Your task to perform on an android device: turn on javascript in the chrome app Image 0: 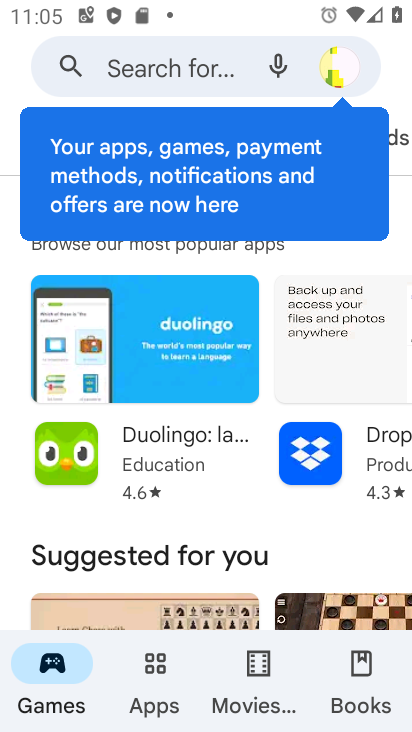
Step 0: press home button
Your task to perform on an android device: turn on javascript in the chrome app Image 1: 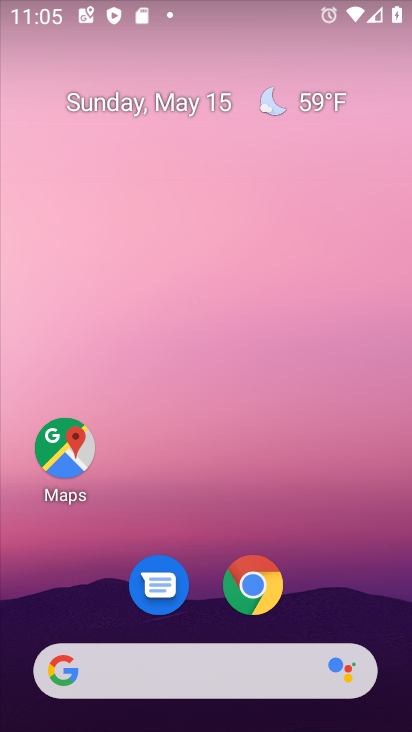
Step 1: click (261, 577)
Your task to perform on an android device: turn on javascript in the chrome app Image 2: 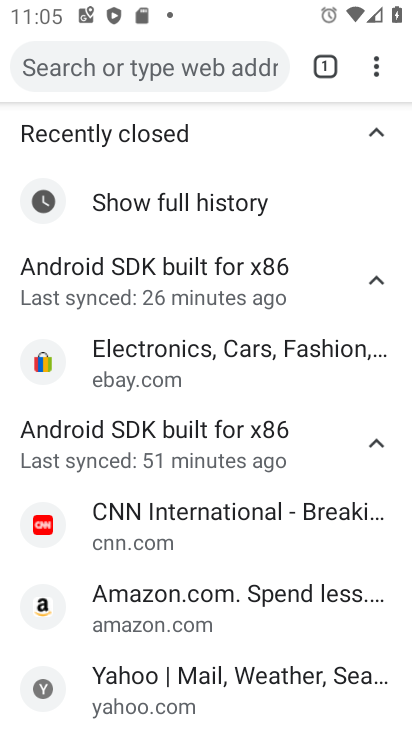
Step 2: click (371, 64)
Your task to perform on an android device: turn on javascript in the chrome app Image 3: 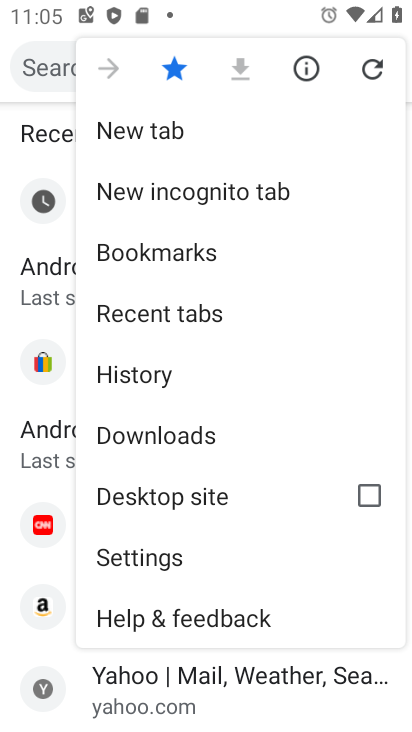
Step 3: click (174, 553)
Your task to perform on an android device: turn on javascript in the chrome app Image 4: 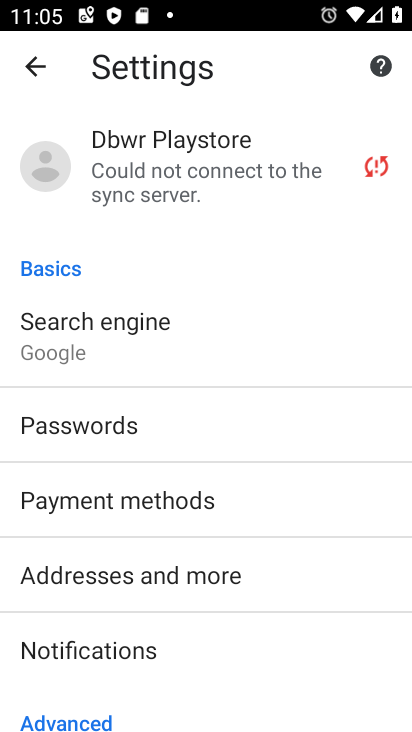
Step 4: drag from (250, 628) to (268, 217)
Your task to perform on an android device: turn on javascript in the chrome app Image 5: 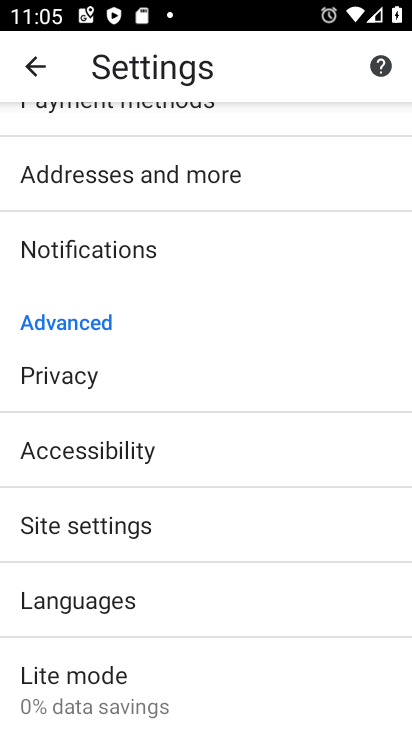
Step 5: click (166, 524)
Your task to perform on an android device: turn on javascript in the chrome app Image 6: 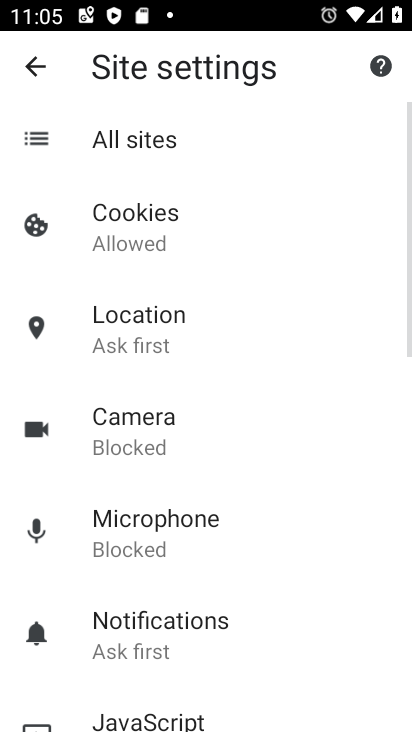
Step 6: drag from (235, 570) to (263, 257)
Your task to perform on an android device: turn on javascript in the chrome app Image 7: 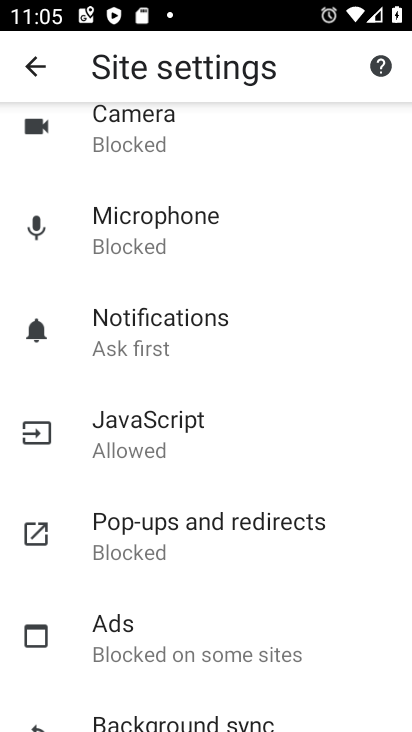
Step 7: click (192, 424)
Your task to perform on an android device: turn on javascript in the chrome app Image 8: 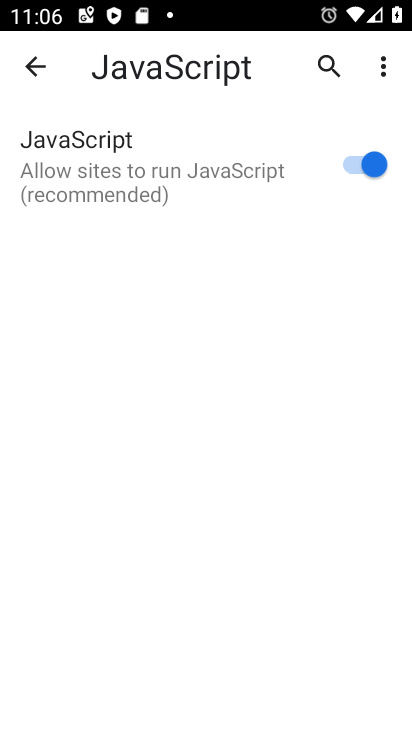
Step 8: task complete